Your task to perform on an android device: Open calendar and show me the first week of next month Image 0: 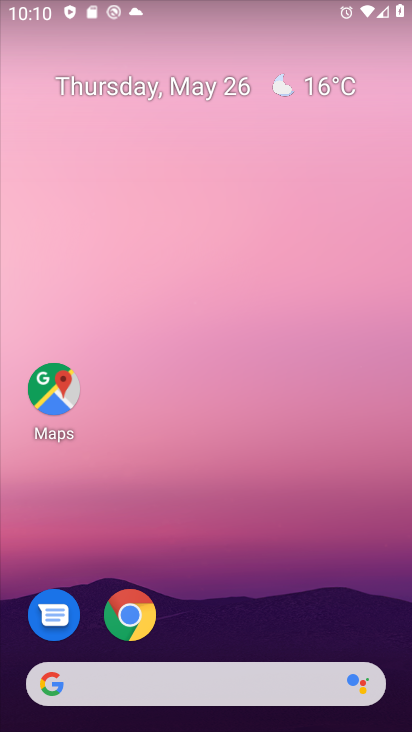
Step 0: press home button
Your task to perform on an android device: Open calendar and show me the first week of next month Image 1: 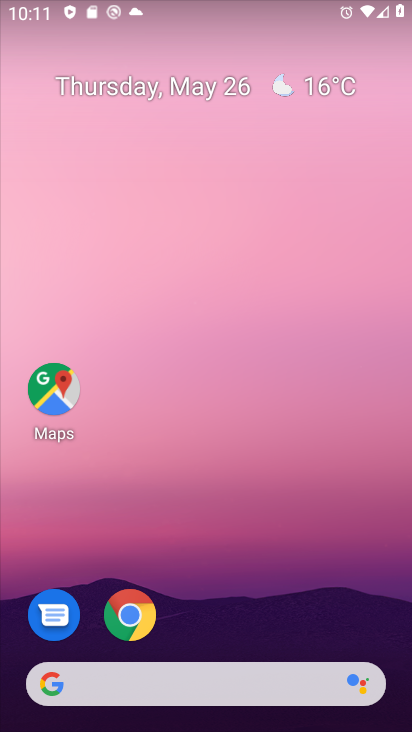
Step 1: drag from (248, 704) to (248, 175)
Your task to perform on an android device: Open calendar and show me the first week of next month Image 2: 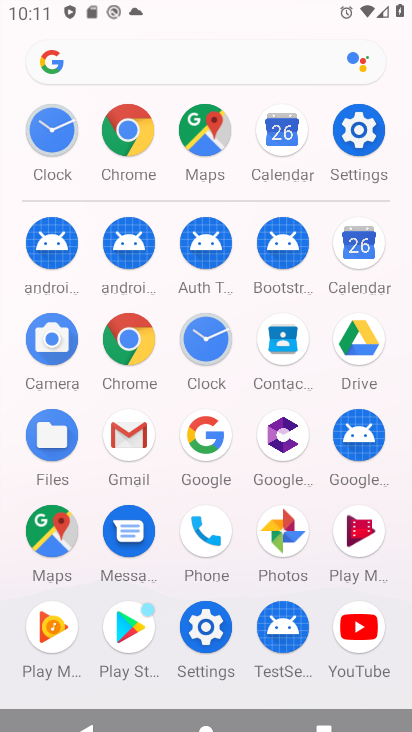
Step 2: click (337, 244)
Your task to perform on an android device: Open calendar and show me the first week of next month Image 3: 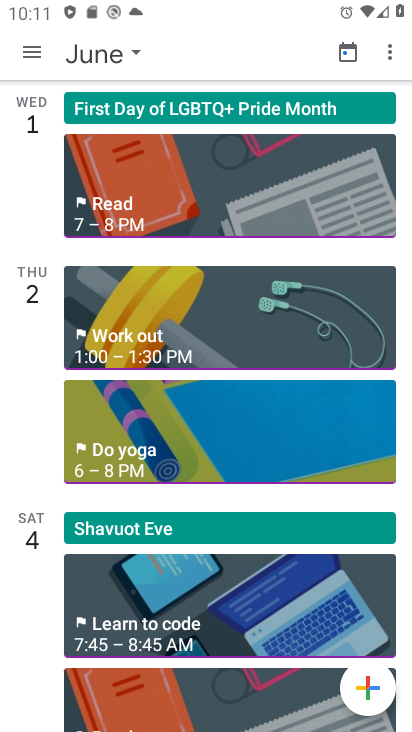
Step 3: click (63, 57)
Your task to perform on an android device: Open calendar and show me the first week of next month Image 4: 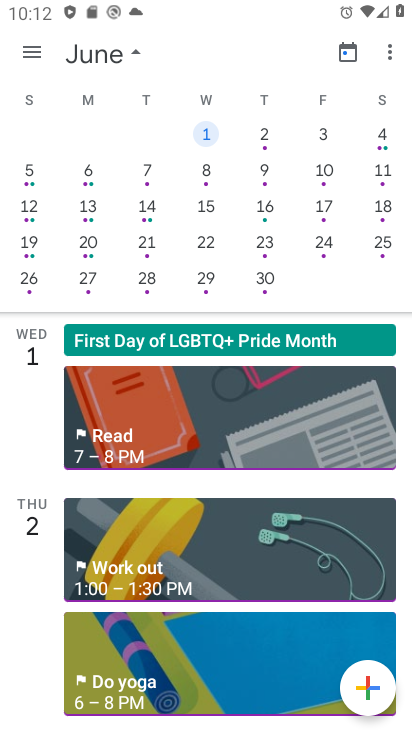
Step 4: click (212, 135)
Your task to perform on an android device: Open calendar and show me the first week of next month Image 5: 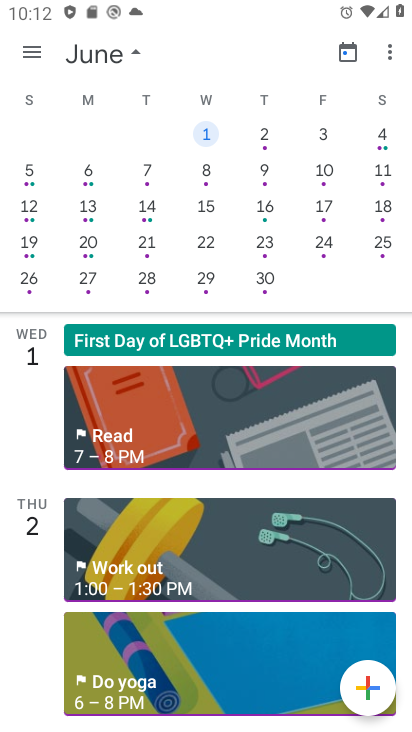
Step 5: task complete